Your task to perform on an android device: open chrome and create a bookmark for the current page Image 0: 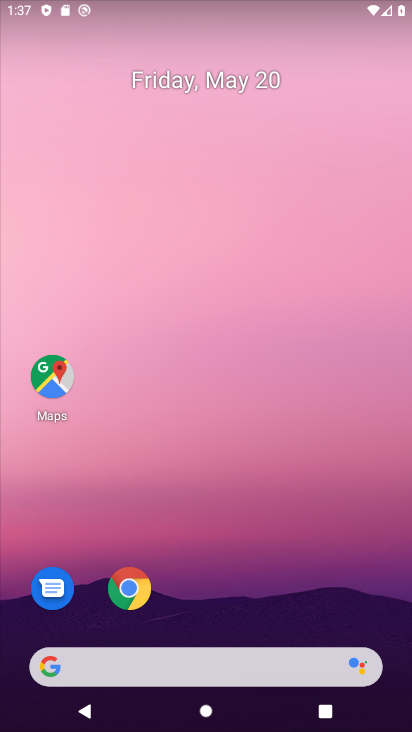
Step 0: click (131, 592)
Your task to perform on an android device: open chrome and create a bookmark for the current page Image 1: 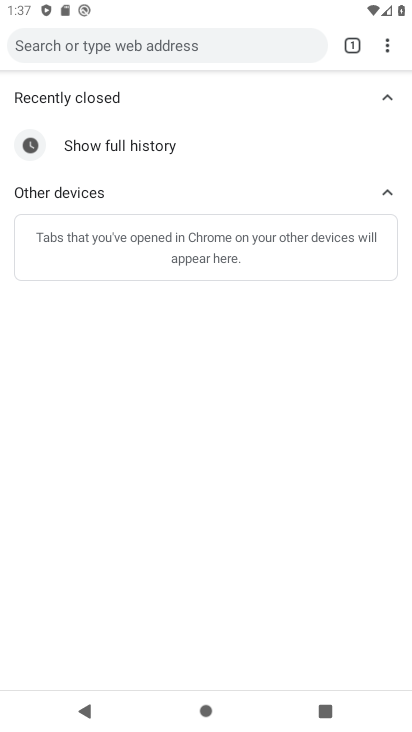
Step 1: task complete